Your task to perform on an android device: Open Wikipedia Image 0: 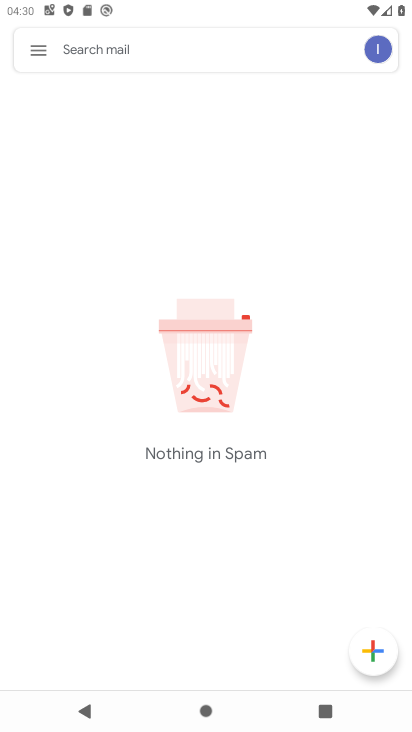
Step 0: press home button
Your task to perform on an android device: Open Wikipedia Image 1: 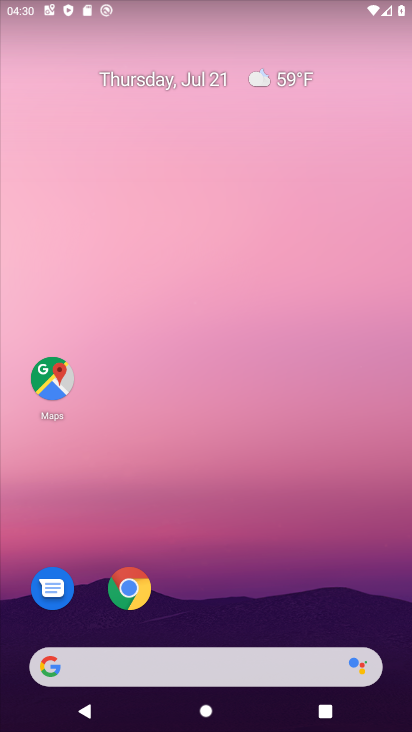
Step 1: drag from (211, 580) to (203, 209)
Your task to perform on an android device: Open Wikipedia Image 2: 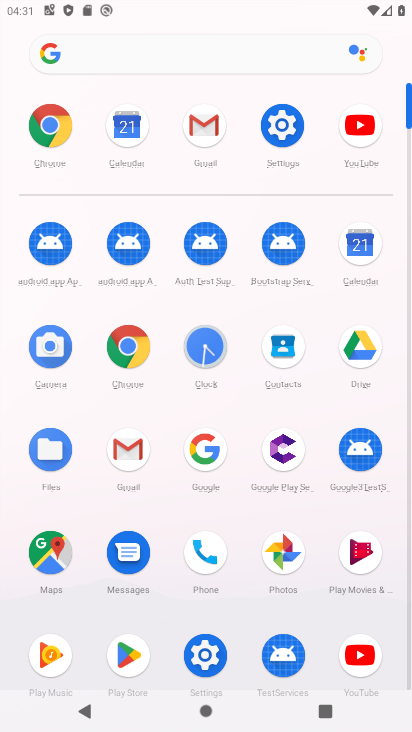
Step 2: click (129, 361)
Your task to perform on an android device: Open Wikipedia Image 3: 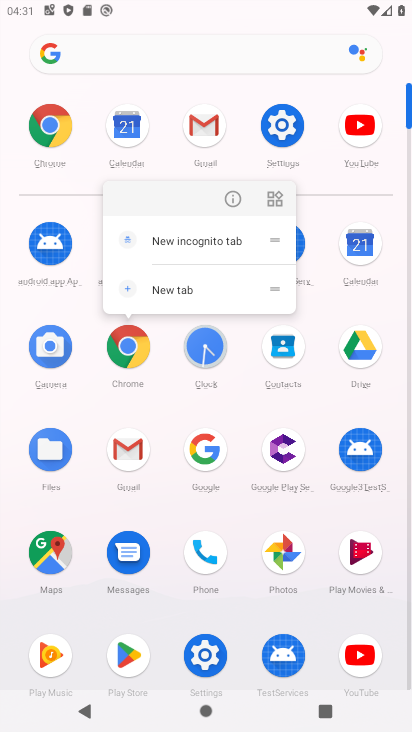
Step 3: click (129, 361)
Your task to perform on an android device: Open Wikipedia Image 4: 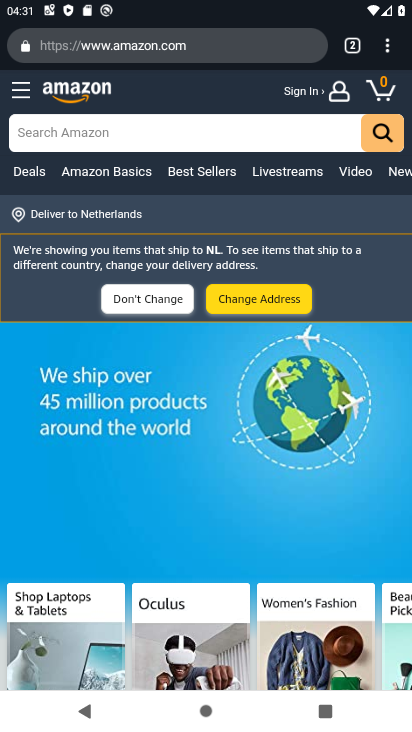
Step 4: click (150, 53)
Your task to perform on an android device: Open Wikipedia Image 5: 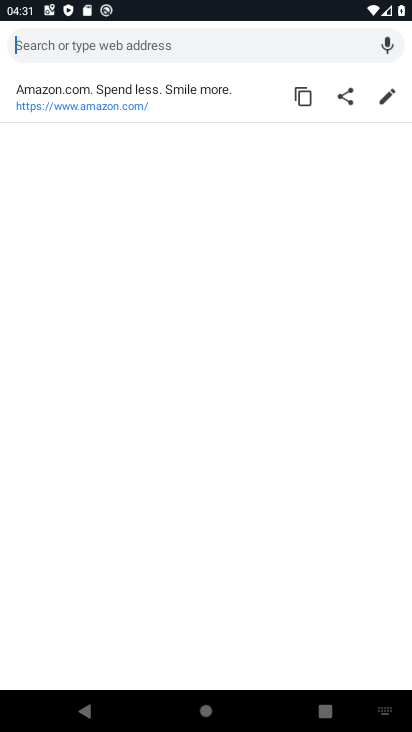
Step 5: type "wikipedia"
Your task to perform on an android device: Open Wikipedia Image 6: 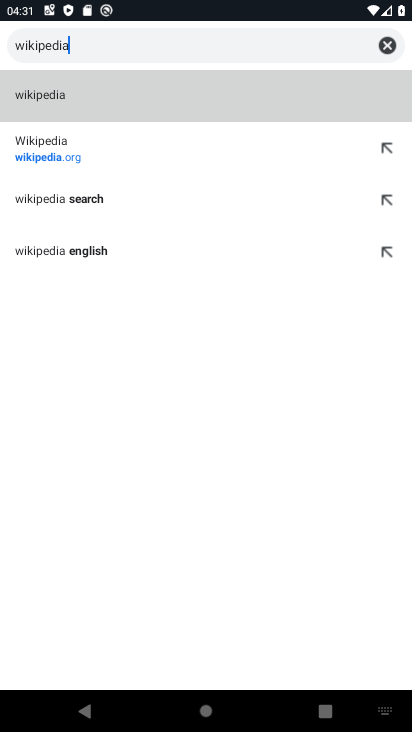
Step 6: click (61, 106)
Your task to perform on an android device: Open Wikipedia Image 7: 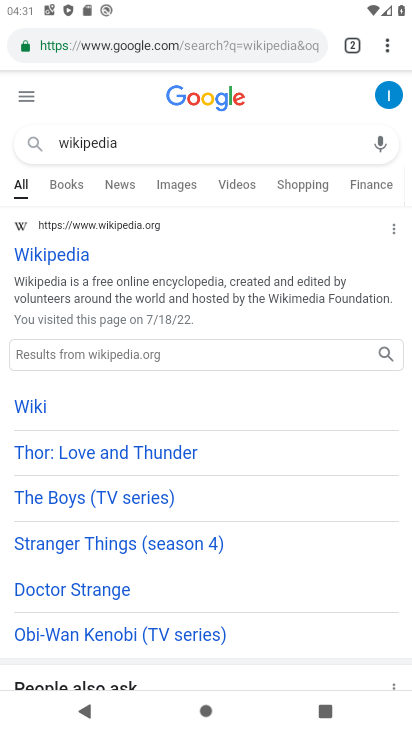
Step 7: click (58, 251)
Your task to perform on an android device: Open Wikipedia Image 8: 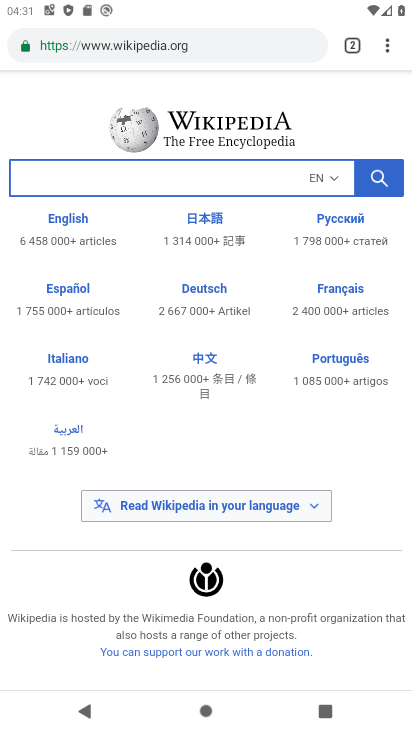
Step 8: task complete